Your task to perform on an android device: manage bookmarks in the chrome app Image 0: 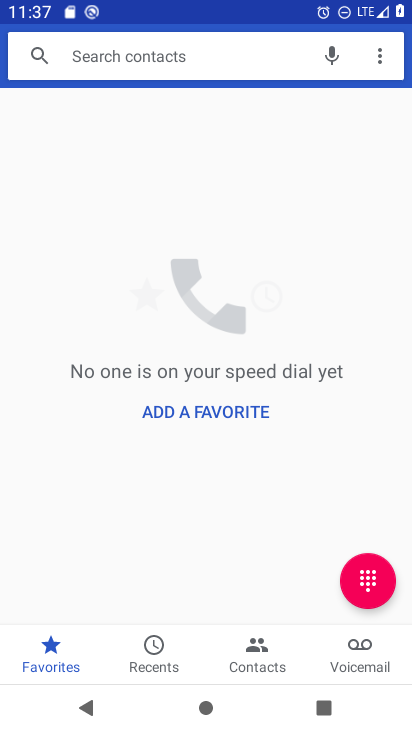
Step 0: press home button
Your task to perform on an android device: manage bookmarks in the chrome app Image 1: 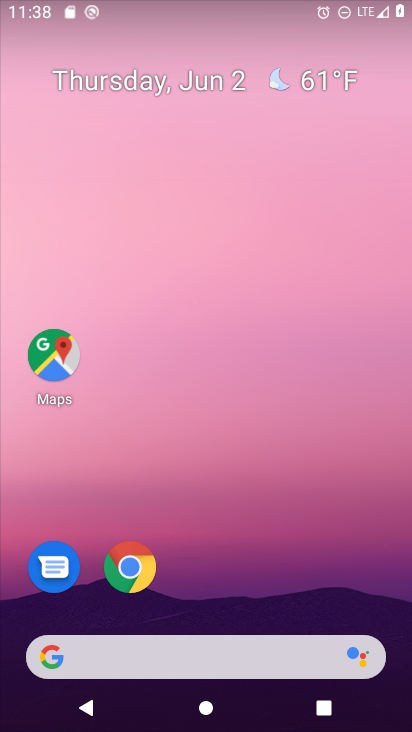
Step 1: click (131, 569)
Your task to perform on an android device: manage bookmarks in the chrome app Image 2: 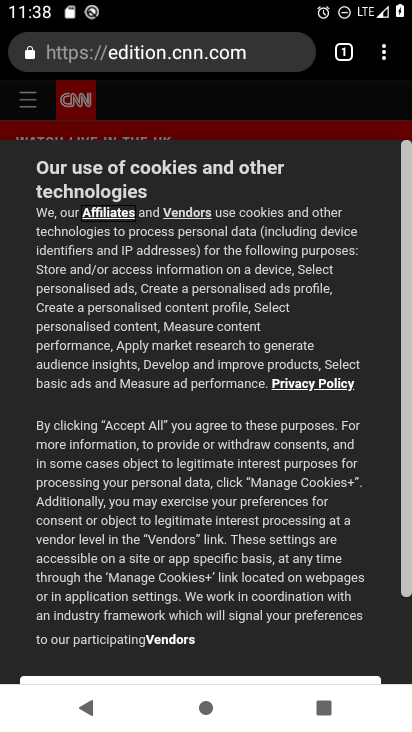
Step 2: task complete